Your task to perform on an android device: Open network settings Image 0: 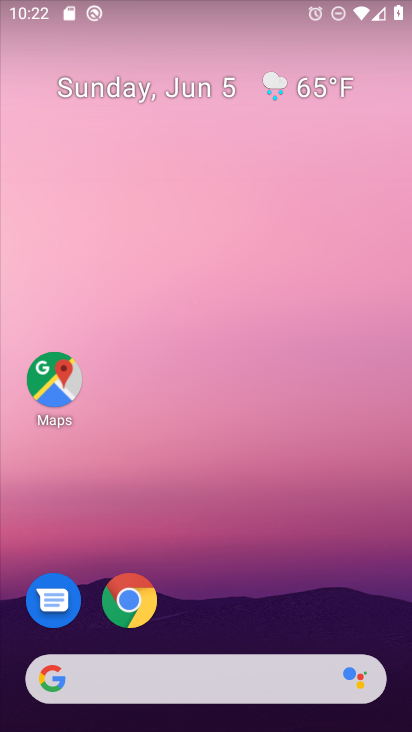
Step 0: drag from (376, 614) to (288, 134)
Your task to perform on an android device: Open network settings Image 1: 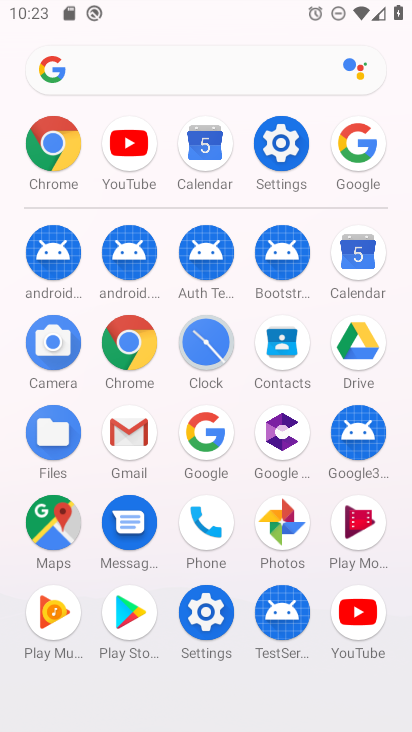
Step 1: click (205, 648)
Your task to perform on an android device: Open network settings Image 2: 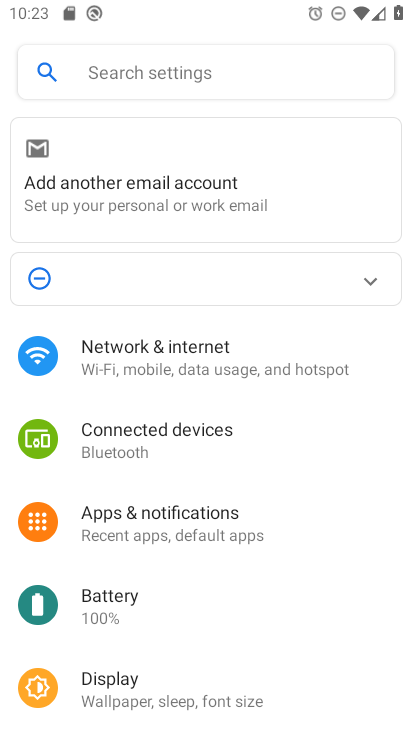
Step 2: click (166, 345)
Your task to perform on an android device: Open network settings Image 3: 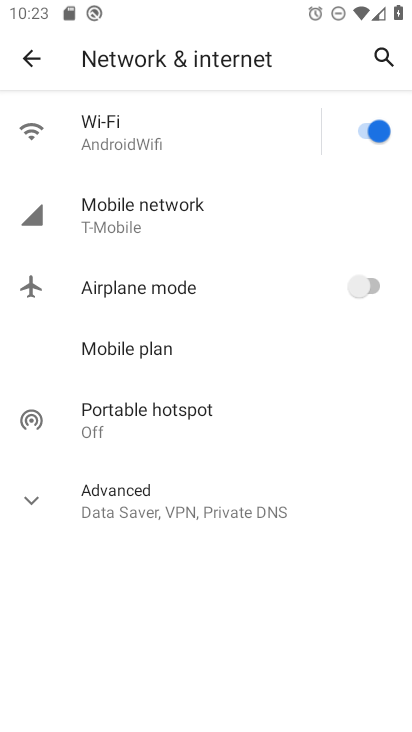
Step 3: task complete